Your task to perform on an android device: toggle pop-ups in chrome Image 0: 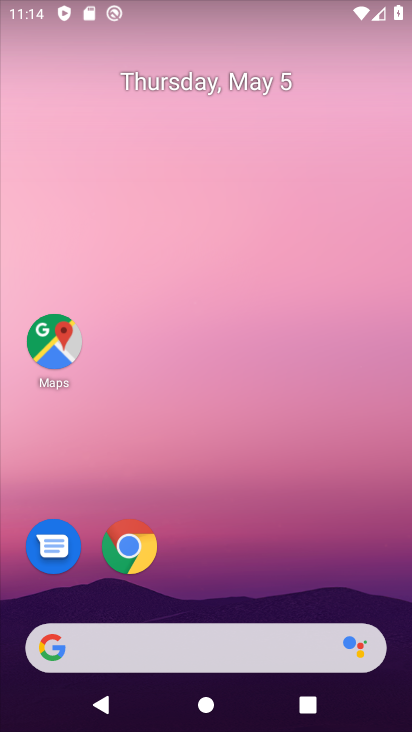
Step 0: click (139, 567)
Your task to perform on an android device: toggle pop-ups in chrome Image 1: 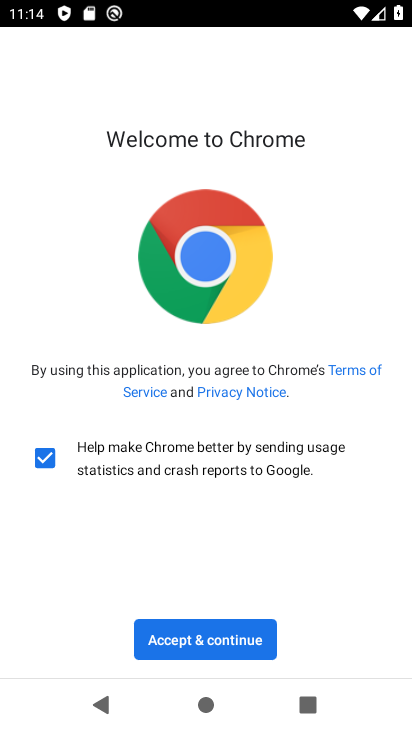
Step 1: click (208, 626)
Your task to perform on an android device: toggle pop-ups in chrome Image 2: 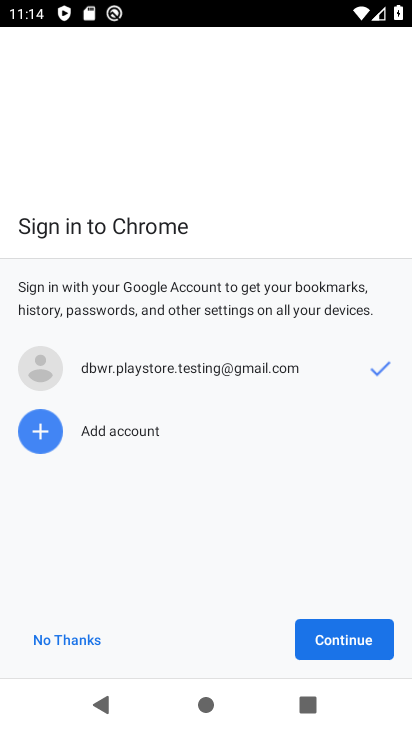
Step 2: click (368, 640)
Your task to perform on an android device: toggle pop-ups in chrome Image 3: 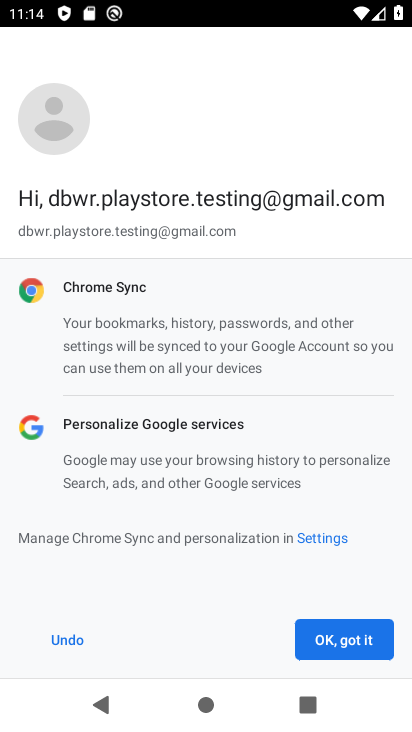
Step 3: click (368, 640)
Your task to perform on an android device: toggle pop-ups in chrome Image 4: 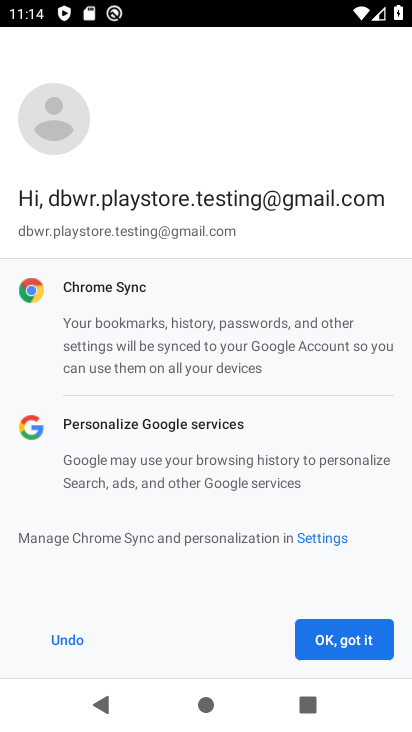
Step 4: click (368, 640)
Your task to perform on an android device: toggle pop-ups in chrome Image 5: 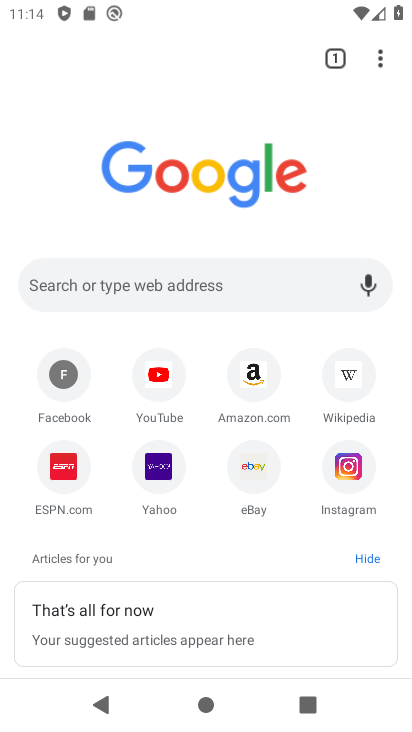
Step 5: click (382, 56)
Your task to perform on an android device: toggle pop-ups in chrome Image 6: 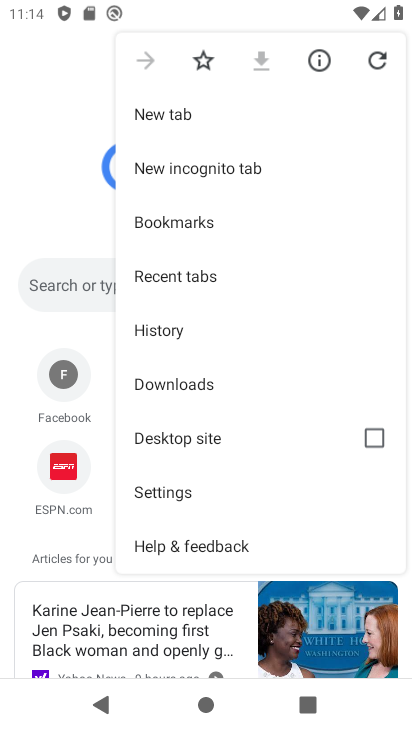
Step 6: click (156, 485)
Your task to perform on an android device: toggle pop-ups in chrome Image 7: 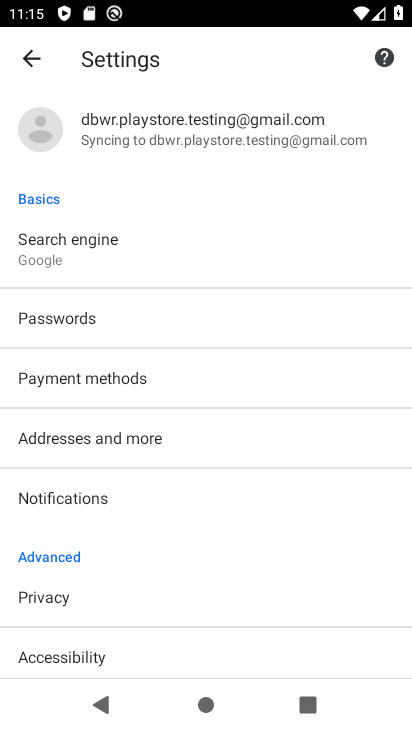
Step 7: drag from (125, 611) to (33, 138)
Your task to perform on an android device: toggle pop-ups in chrome Image 8: 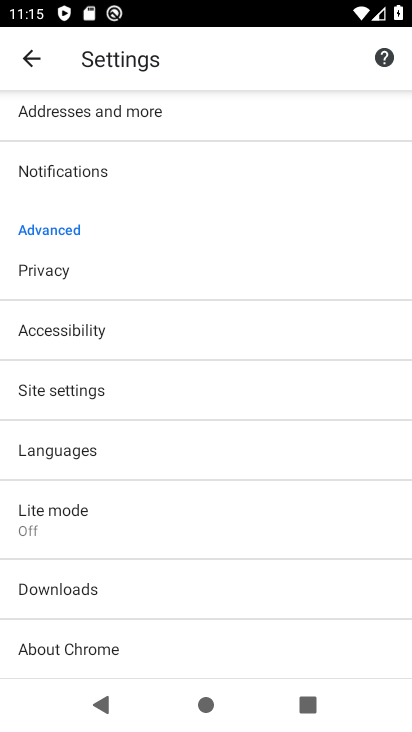
Step 8: click (56, 407)
Your task to perform on an android device: toggle pop-ups in chrome Image 9: 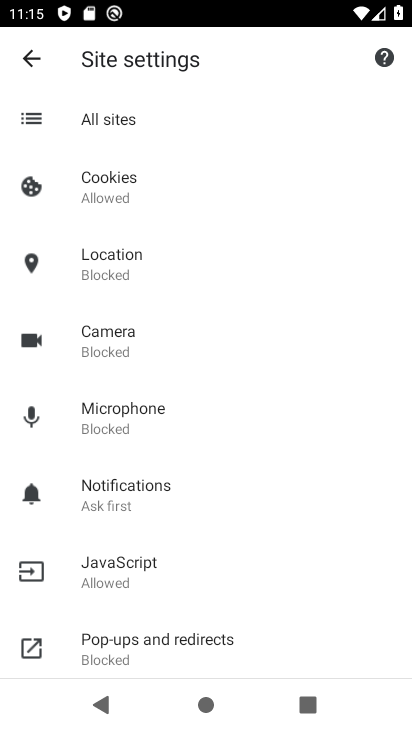
Step 9: click (133, 650)
Your task to perform on an android device: toggle pop-ups in chrome Image 10: 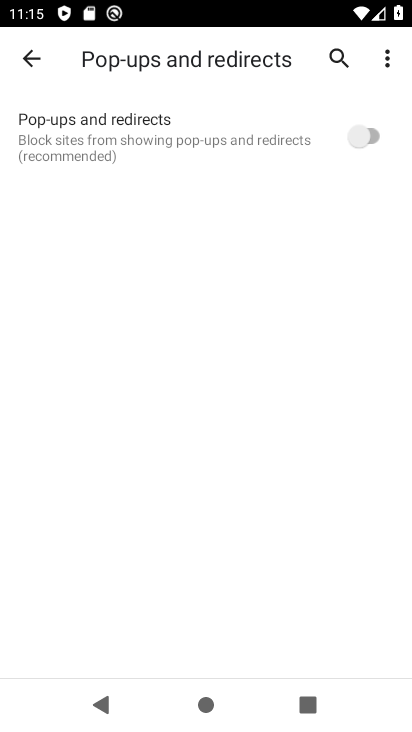
Step 10: click (378, 132)
Your task to perform on an android device: toggle pop-ups in chrome Image 11: 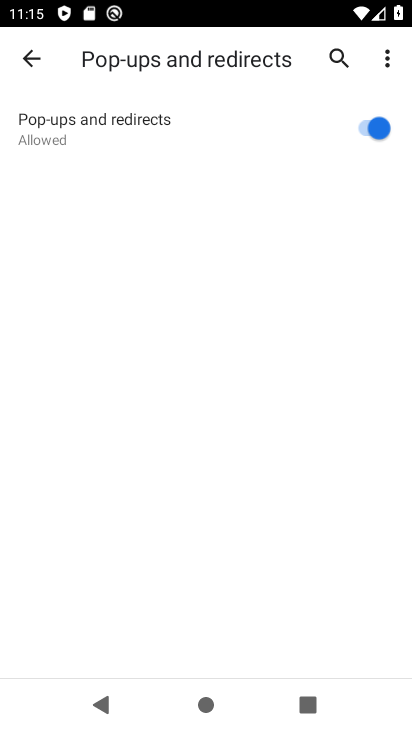
Step 11: task complete